Your task to perform on an android device: Open Youtube and go to the subscriptions tab Image 0: 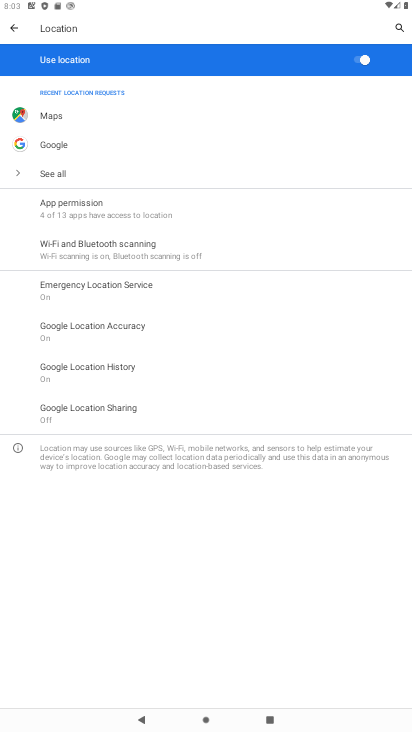
Step 0: press home button
Your task to perform on an android device: Open Youtube and go to the subscriptions tab Image 1: 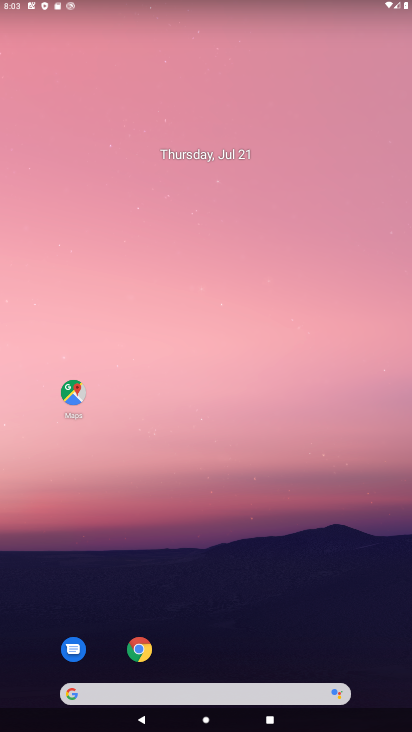
Step 1: drag from (228, 645) to (93, 10)
Your task to perform on an android device: Open Youtube and go to the subscriptions tab Image 2: 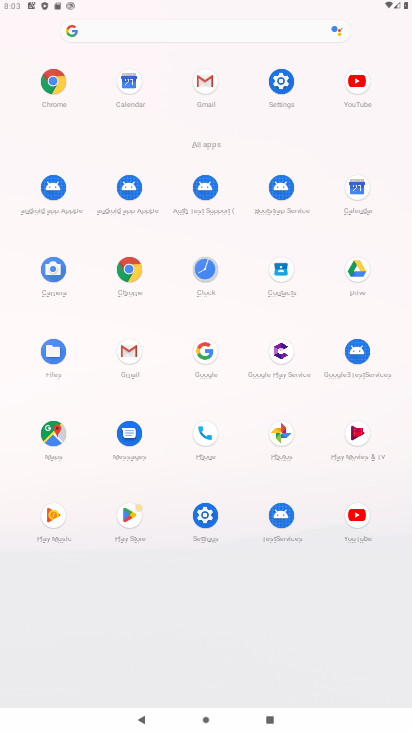
Step 2: click (363, 522)
Your task to perform on an android device: Open Youtube and go to the subscriptions tab Image 3: 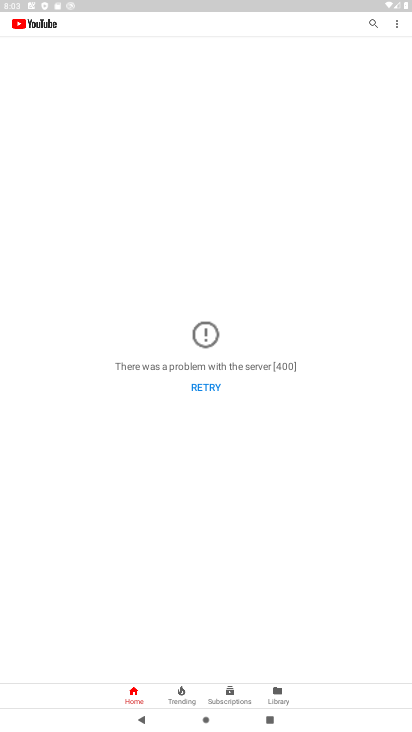
Step 3: click (196, 376)
Your task to perform on an android device: Open Youtube and go to the subscriptions tab Image 4: 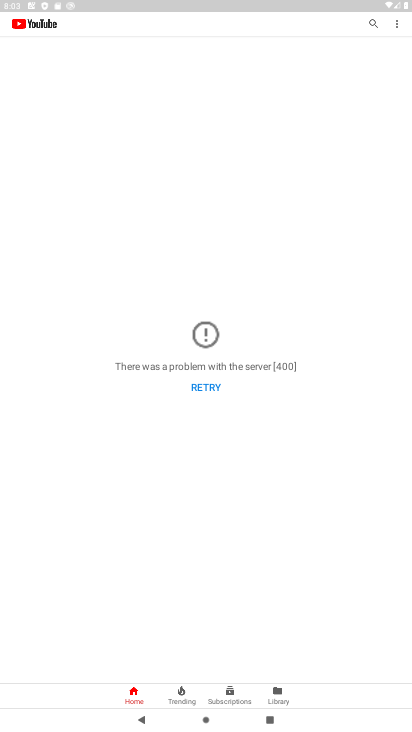
Step 4: click (198, 388)
Your task to perform on an android device: Open Youtube and go to the subscriptions tab Image 5: 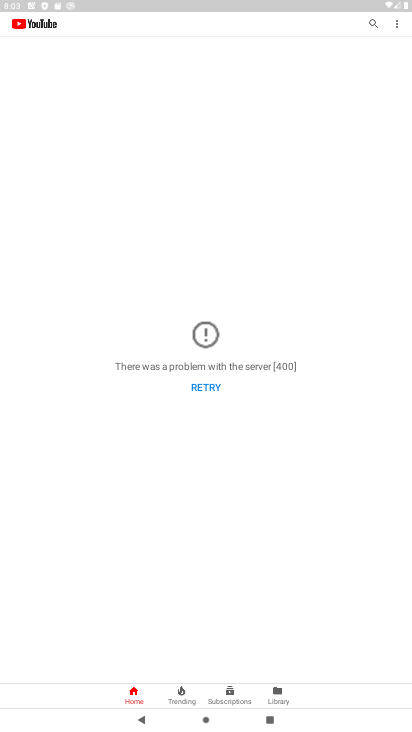
Step 5: click (234, 695)
Your task to perform on an android device: Open Youtube and go to the subscriptions tab Image 6: 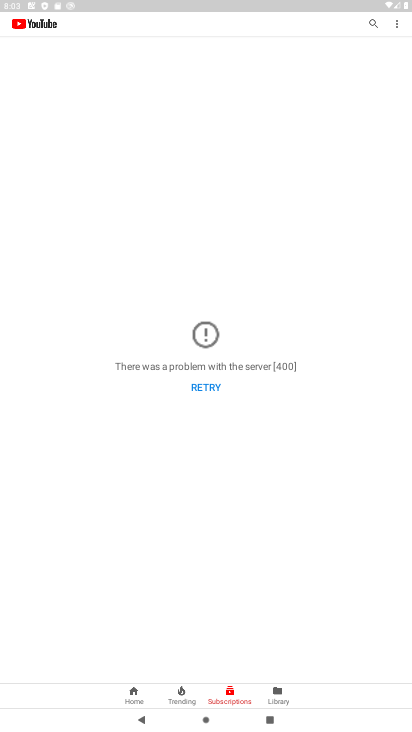
Step 6: task complete